Your task to perform on an android device: uninstall "WhatsApp Messenger" Image 0: 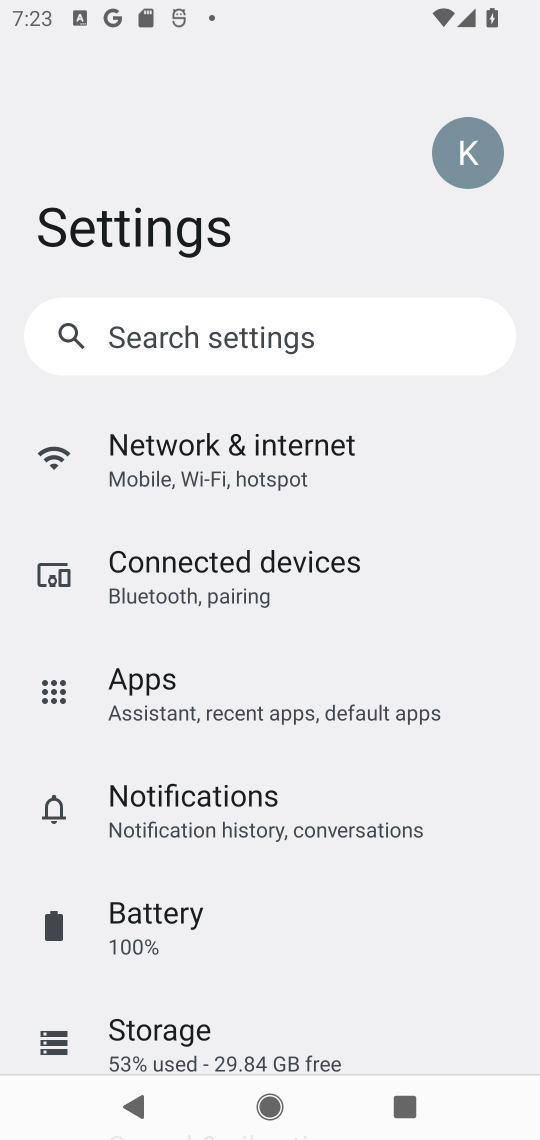
Step 0: press home button
Your task to perform on an android device: uninstall "WhatsApp Messenger" Image 1: 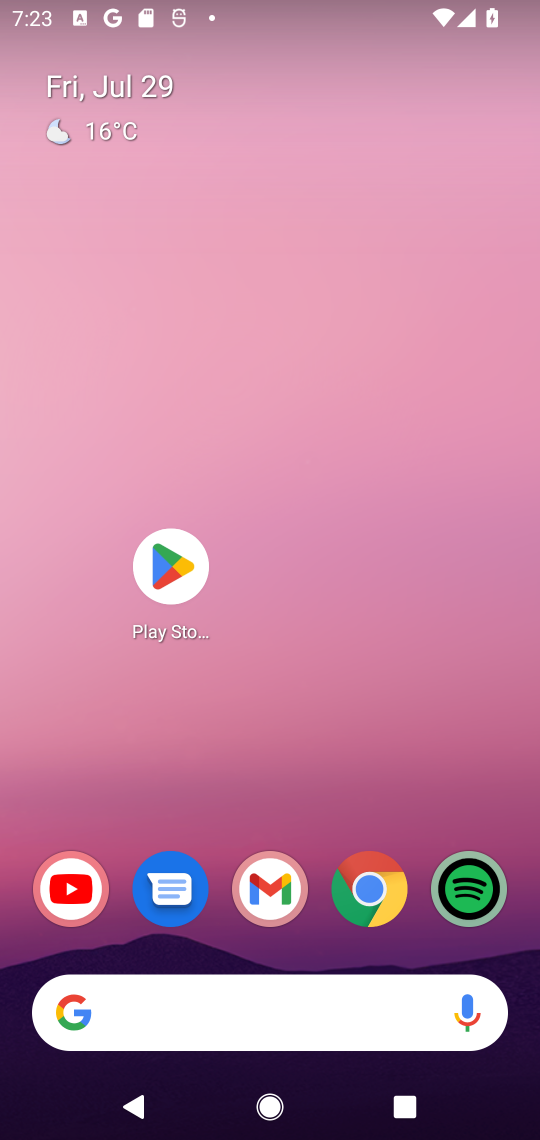
Step 1: click (179, 561)
Your task to perform on an android device: uninstall "WhatsApp Messenger" Image 2: 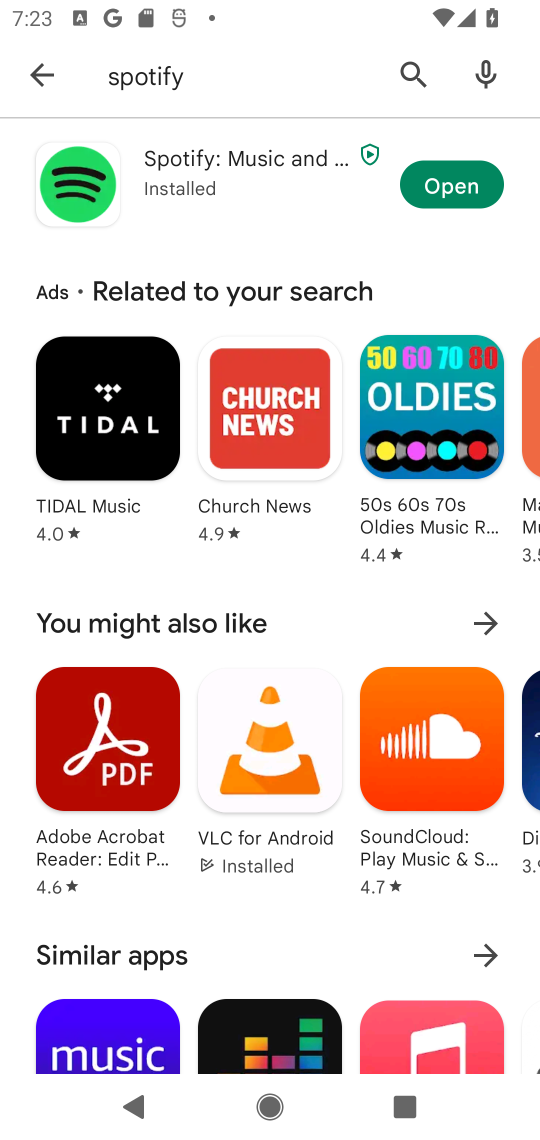
Step 2: click (399, 64)
Your task to perform on an android device: uninstall "WhatsApp Messenger" Image 3: 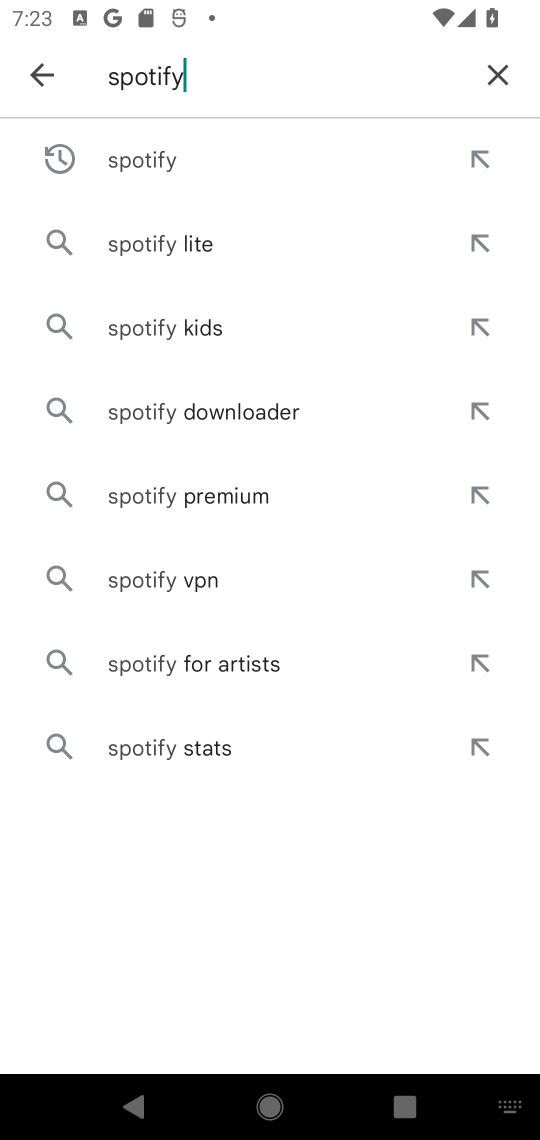
Step 3: click (496, 73)
Your task to perform on an android device: uninstall "WhatsApp Messenger" Image 4: 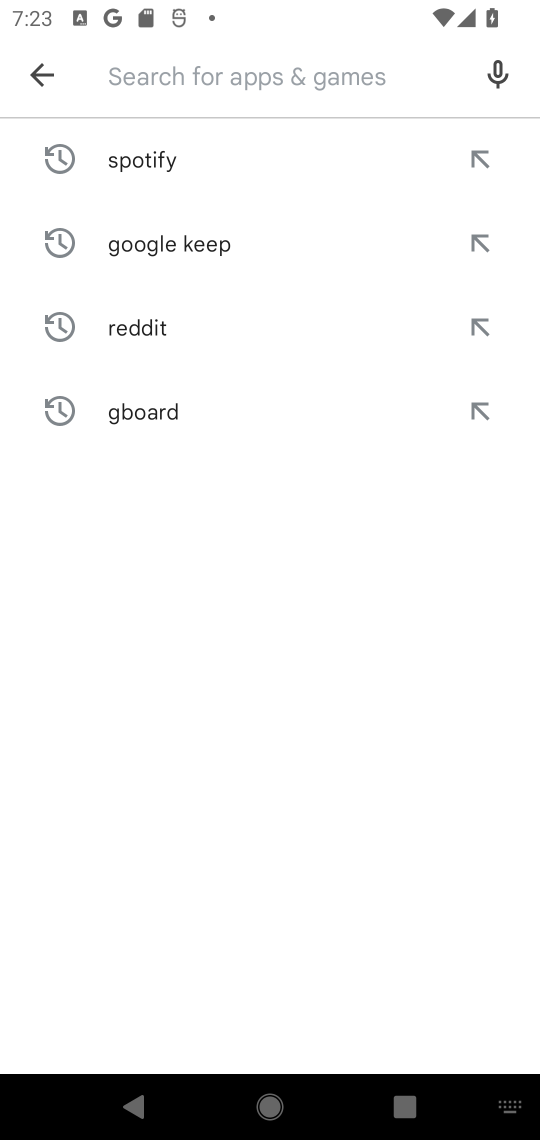
Step 4: type "WhatsApp Messenger"
Your task to perform on an android device: uninstall "WhatsApp Messenger" Image 5: 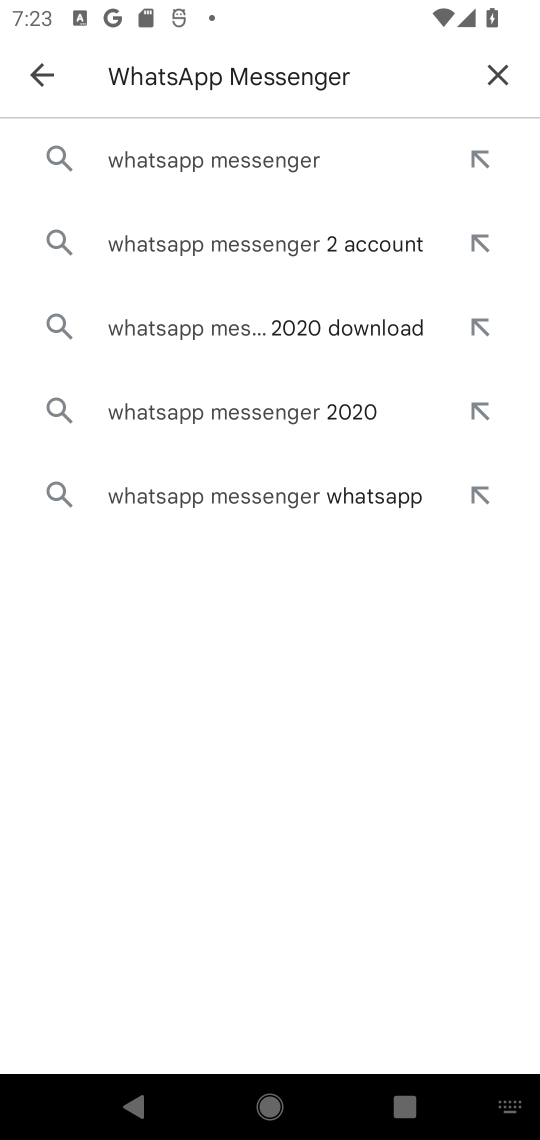
Step 5: click (221, 166)
Your task to perform on an android device: uninstall "WhatsApp Messenger" Image 6: 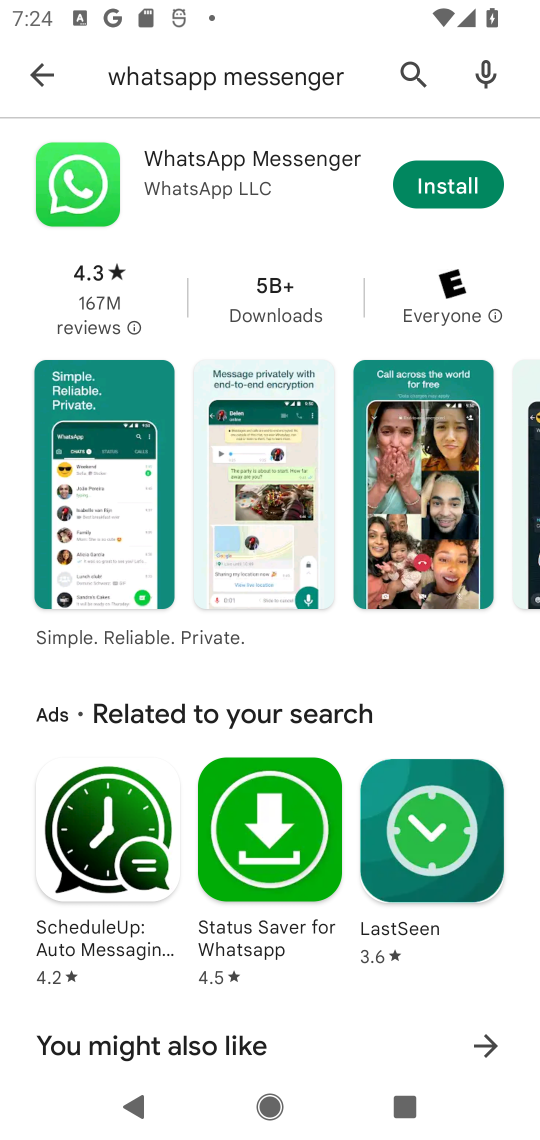
Step 6: task complete